Your task to perform on an android device: Open calendar and show me the fourth week of next month Image 0: 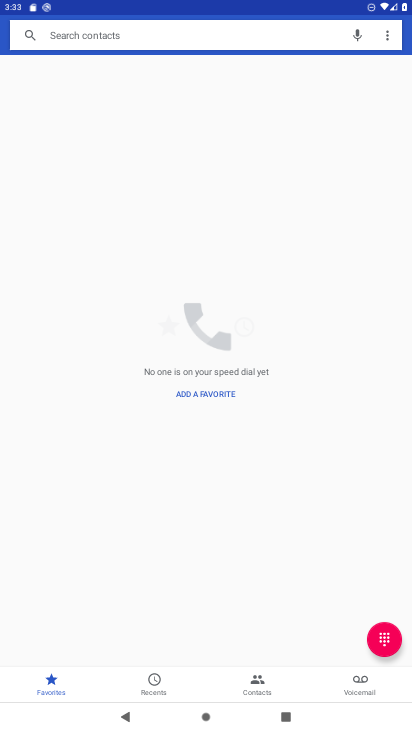
Step 0: press home button
Your task to perform on an android device: Open calendar and show me the fourth week of next month Image 1: 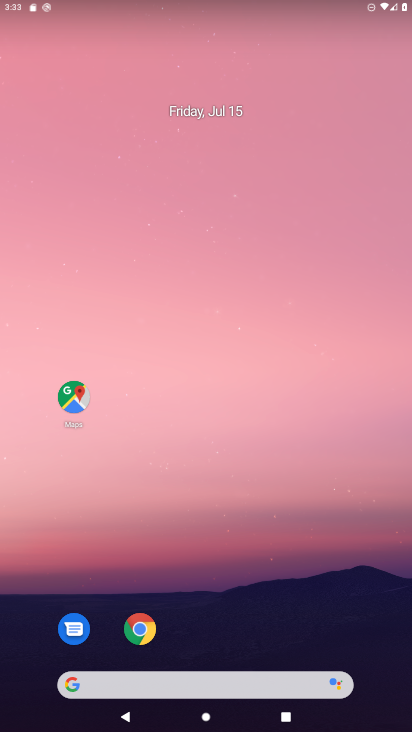
Step 1: drag from (301, 407) to (357, 85)
Your task to perform on an android device: Open calendar and show me the fourth week of next month Image 2: 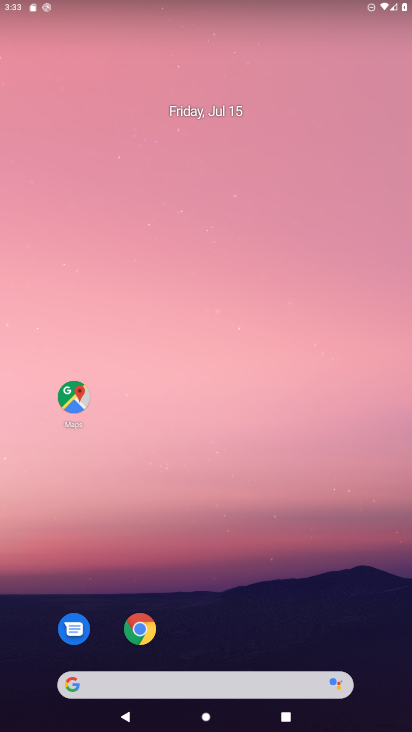
Step 2: drag from (321, 624) to (301, 138)
Your task to perform on an android device: Open calendar and show me the fourth week of next month Image 3: 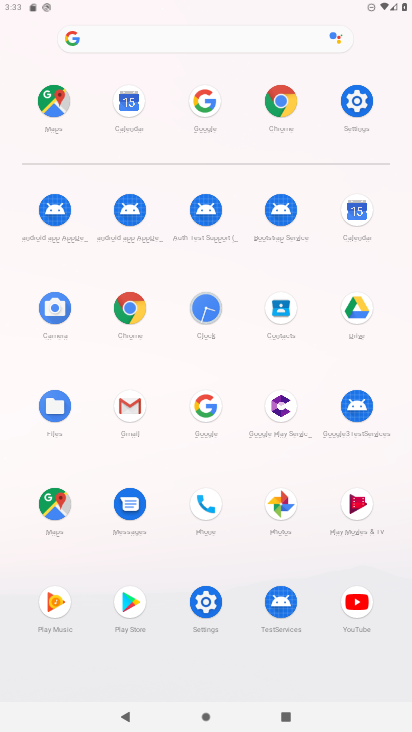
Step 3: click (362, 231)
Your task to perform on an android device: Open calendar and show me the fourth week of next month Image 4: 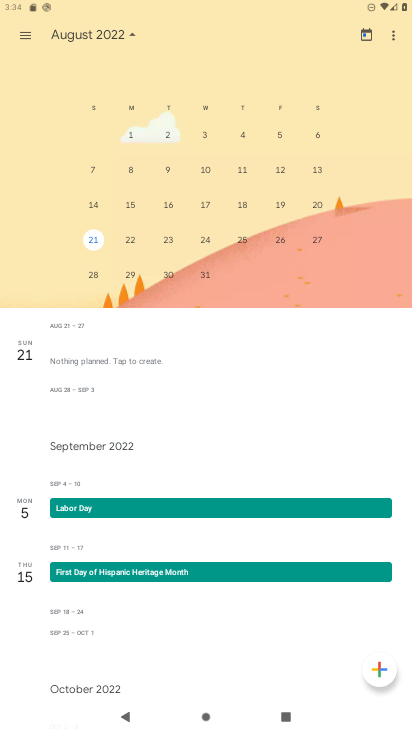
Step 4: drag from (361, 230) to (28, 220)
Your task to perform on an android device: Open calendar and show me the fourth week of next month Image 5: 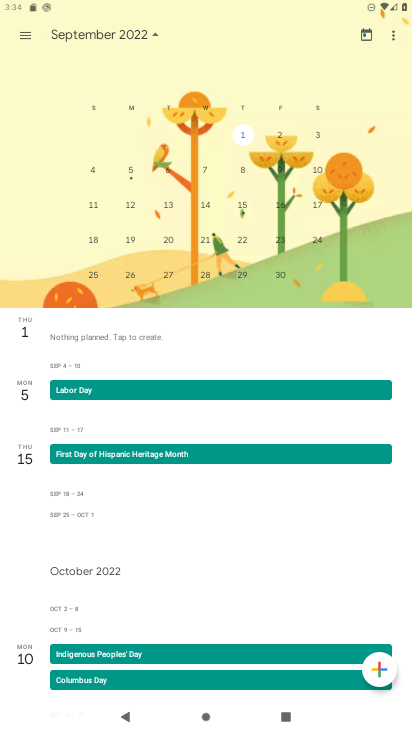
Step 5: click (208, 269)
Your task to perform on an android device: Open calendar and show me the fourth week of next month Image 6: 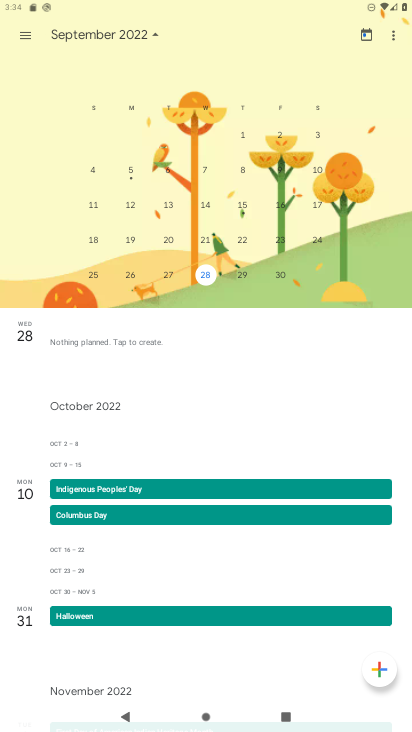
Step 6: task complete